Your task to perform on an android device: change text size in settings app Image 0: 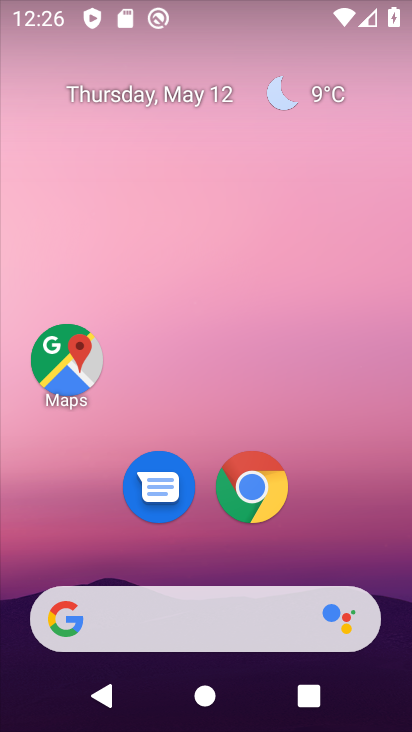
Step 0: click (207, 236)
Your task to perform on an android device: change text size in settings app Image 1: 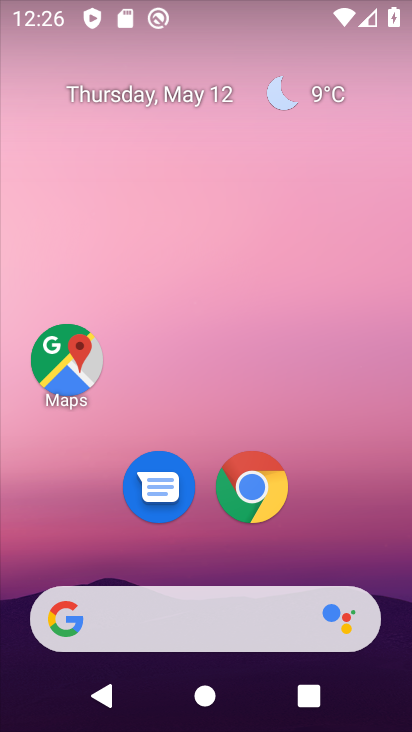
Step 1: drag from (217, 352) to (217, 233)
Your task to perform on an android device: change text size in settings app Image 2: 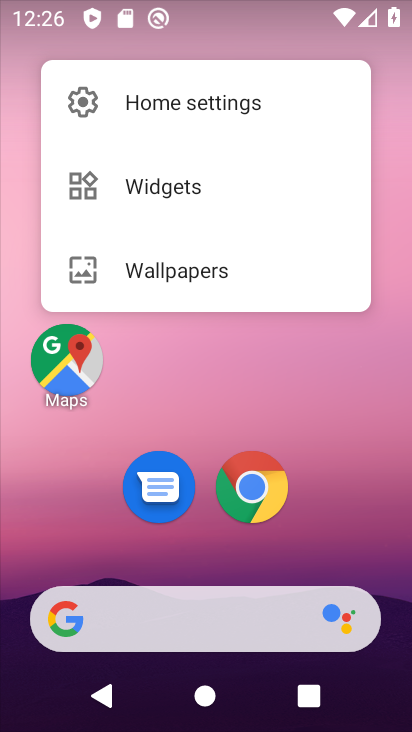
Step 2: drag from (205, 314) to (216, 222)
Your task to perform on an android device: change text size in settings app Image 3: 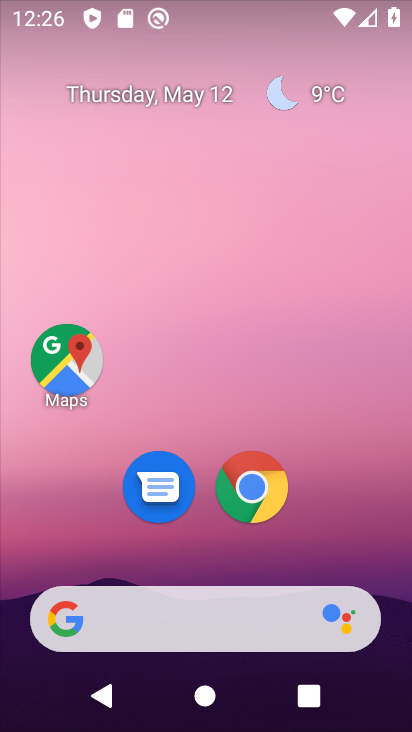
Step 3: drag from (201, 589) to (228, 210)
Your task to perform on an android device: change text size in settings app Image 4: 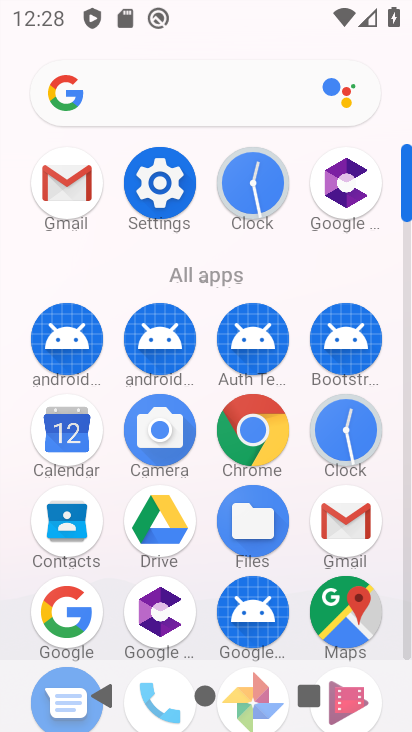
Step 4: click (146, 201)
Your task to perform on an android device: change text size in settings app Image 5: 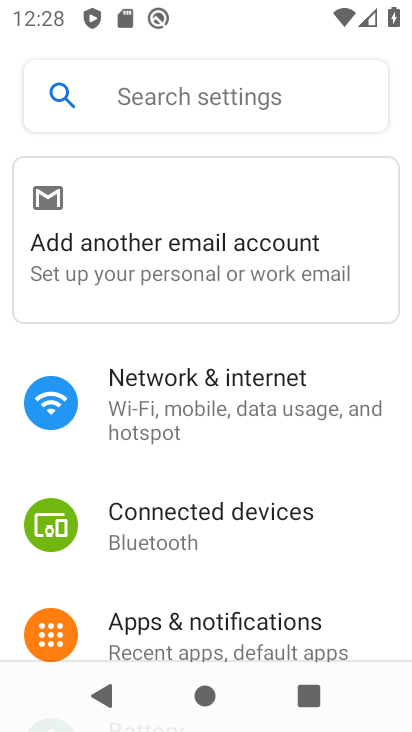
Step 5: drag from (206, 636) to (208, 280)
Your task to perform on an android device: change text size in settings app Image 6: 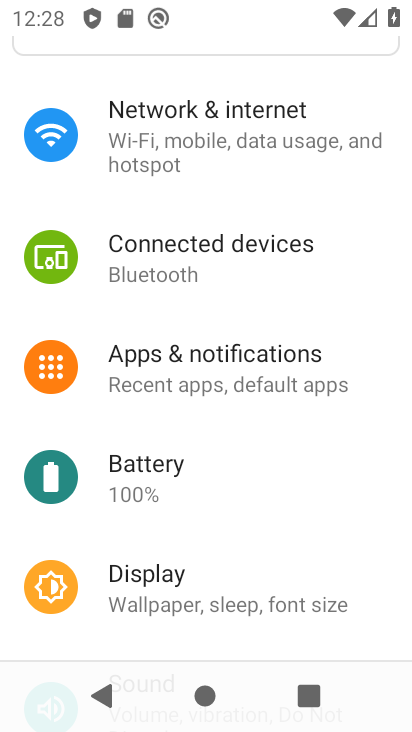
Step 6: drag from (164, 610) to (182, 284)
Your task to perform on an android device: change text size in settings app Image 7: 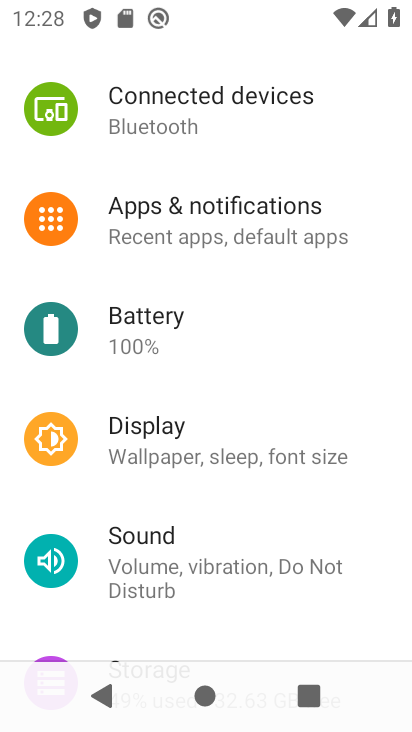
Step 7: drag from (177, 619) to (203, 317)
Your task to perform on an android device: change text size in settings app Image 8: 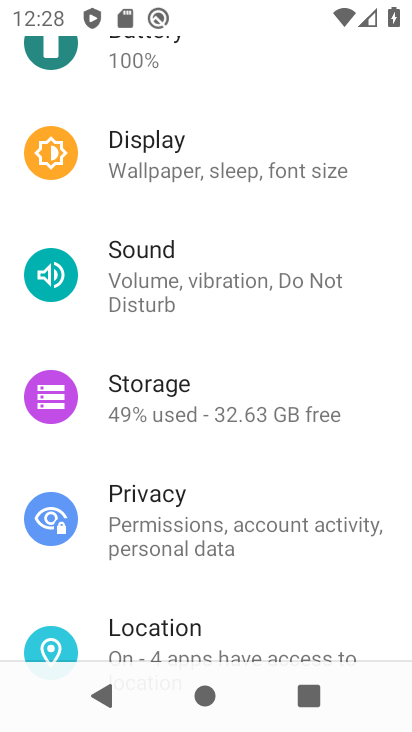
Step 8: drag from (201, 640) to (207, 333)
Your task to perform on an android device: change text size in settings app Image 9: 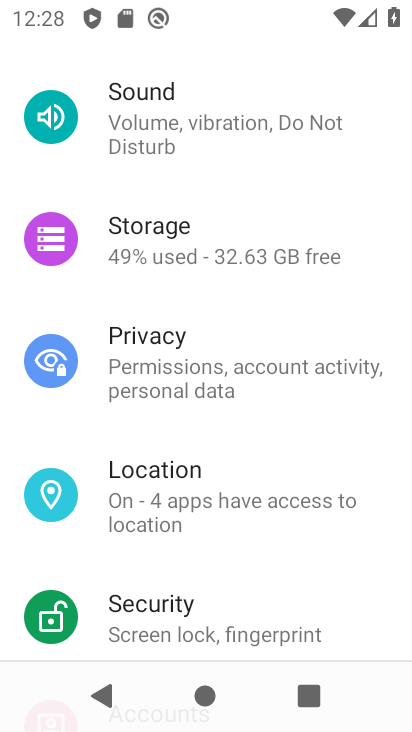
Step 9: drag from (183, 647) to (198, 366)
Your task to perform on an android device: change text size in settings app Image 10: 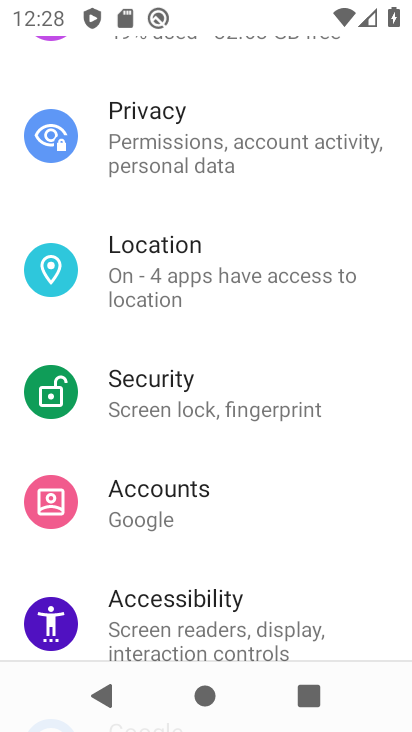
Step 10: click (189, 629)
Your task to perform on an android device: change text size in settings app Image 11: 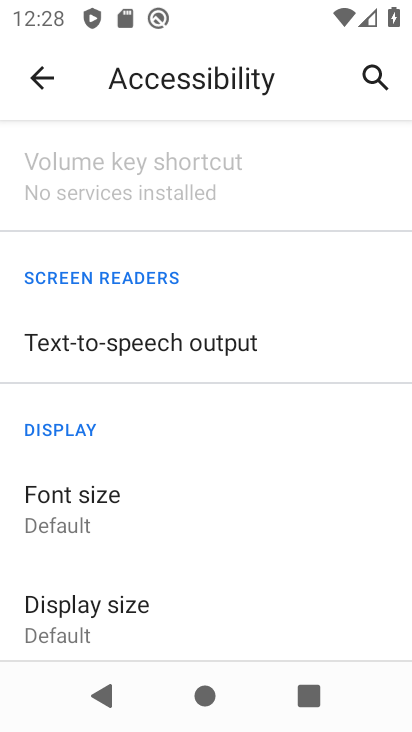
Step 11: click (70, 517)
Your task to perform on an android device: change text size in settings app Image 12: 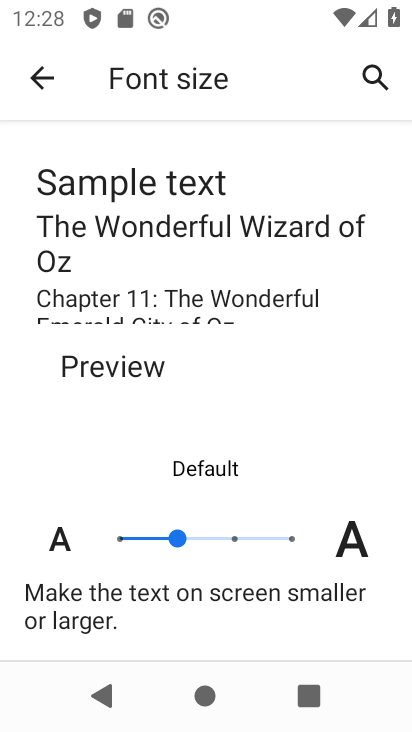
Step 12: click (235, 542)
Your task to perform on an android device: change text size in settings app Image 13: 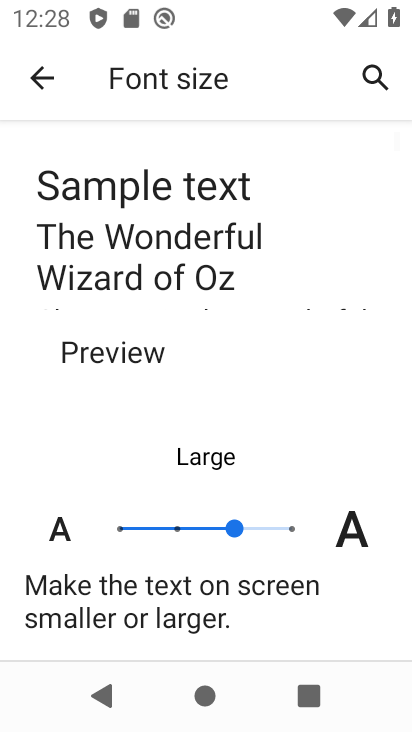
Step 13: task complete